Your task to perform on an android device: empty trash in google photos Image 0: 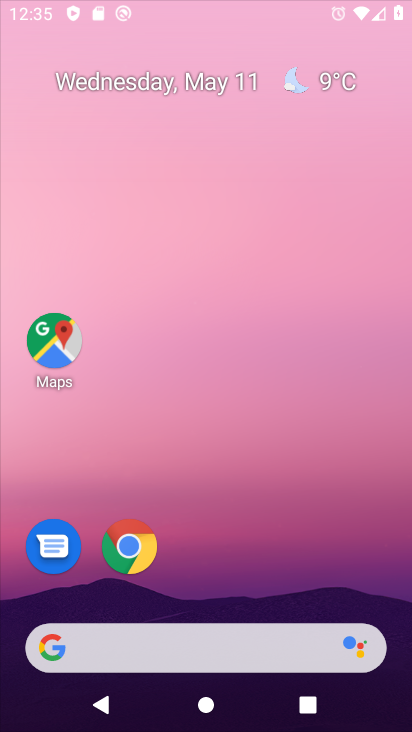
Step 0: click (237, 81)
Your task to perform on an android device: empty trash in google photos Image 1: 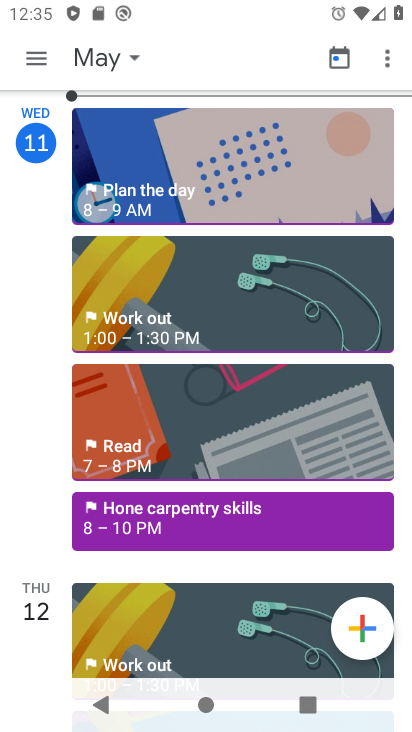
Step 1: drag from (200, 633) to (224, 232)
Your task to perform on an android device: empty trash in google photos Image 2: 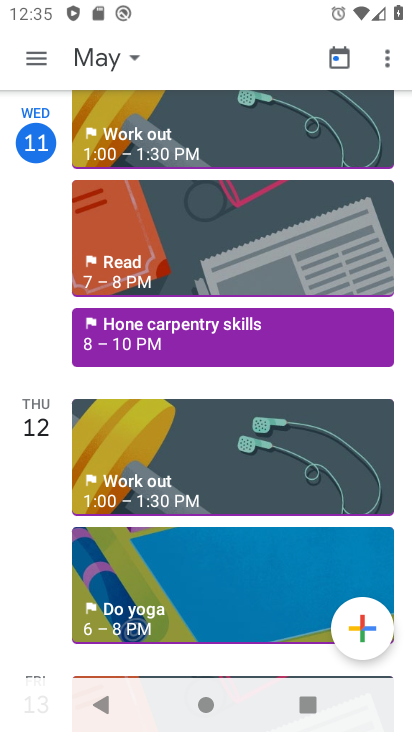
Step 2: drag from (230, 661) to (222, 268)
Your task to perform on an android device: empty trash in google photos Image 3: 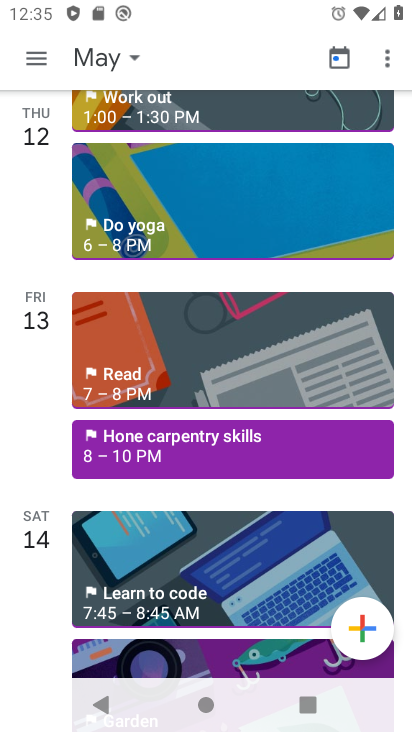
Step 3: drag from (228, 517) to (226, 302)
Your task to perform on an android device: empty trash in google photos Image 4: 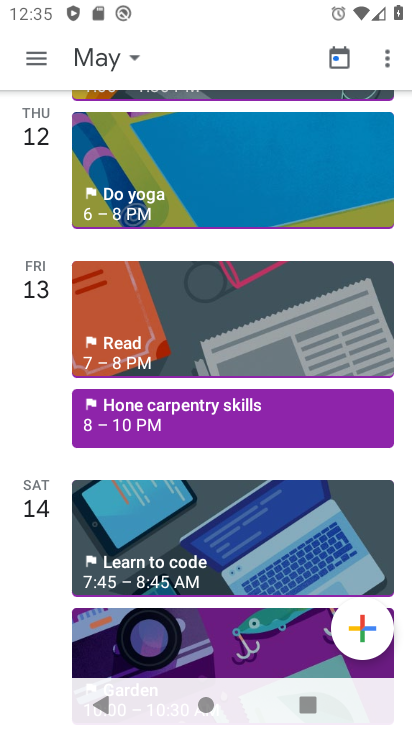
Step 4: press home button
Your task to perform on an android device: empty trash in google photos Image 5: 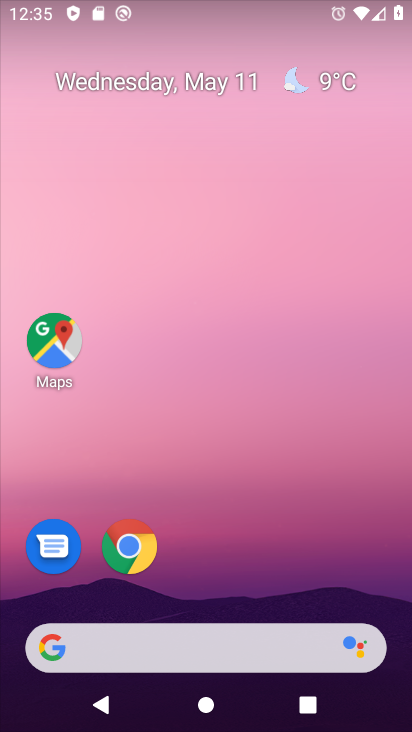
Step 5: drag from (185, 583) to (216, 196)
Your task to perform on an android device: empty trash in google photos Image 6: 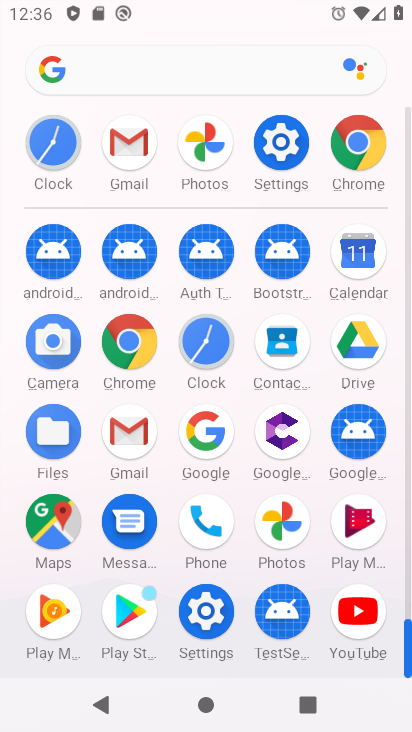
Step 6: click (276, 523)
Your task to perform on an android device: empty trash in google photos Image 7: 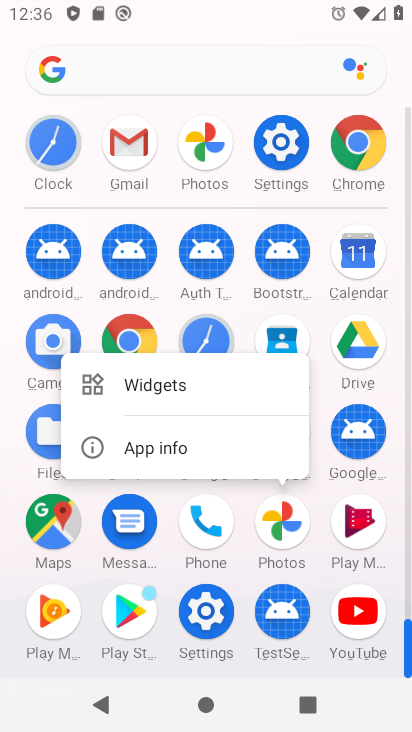
Step 7: click (113, 463)
Your task to perform on an android device: empty trash in google photos Image 8: 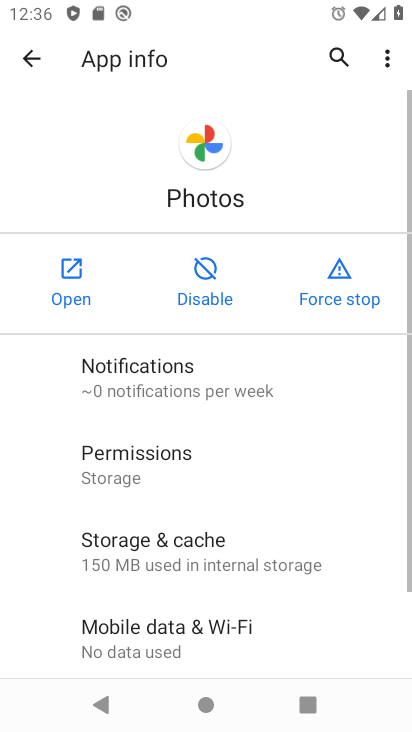
Step 8: click (78, 265)
Your task to perform on an android device: empty trash in google photos Image 9: 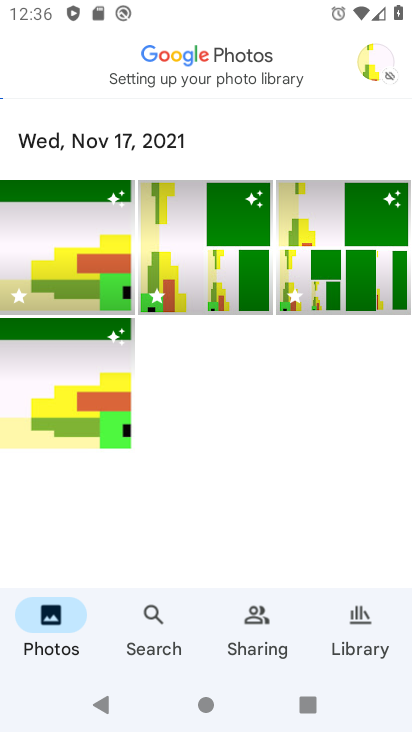
Step 9: drag from (190, 463) to (185, 222)
Your task to perform on an android device: empty trash in google photos Image 10: 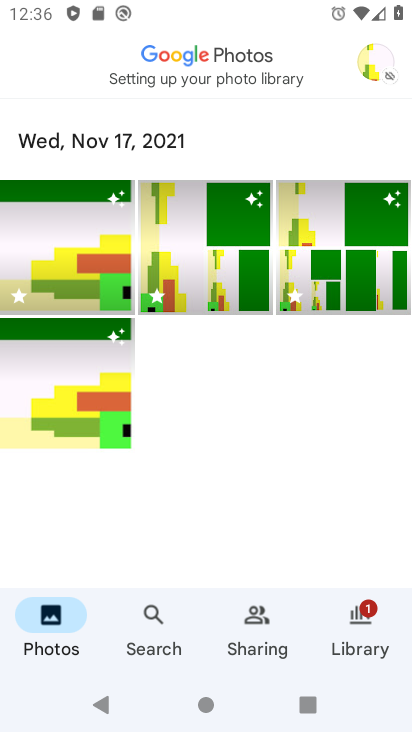
Step 10: drag from (215, 527) to (239, 258)
Your task to perform on an android device: empty trash in google photos Image 11: 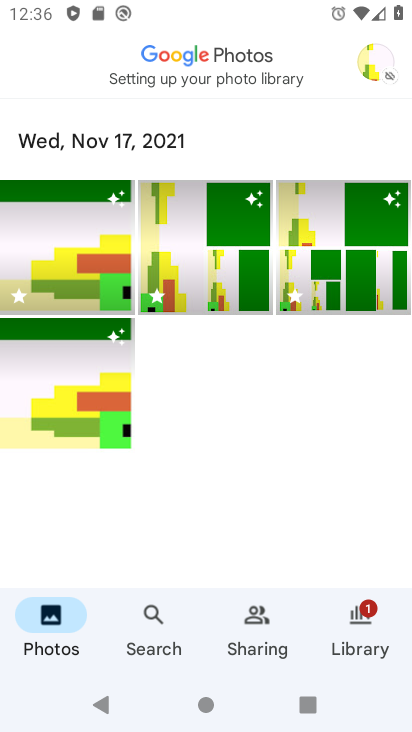
Step 11: drag from (250, 500) to (215, 342)
Your task to perform on an android device: empty trash in google photos Image 12: 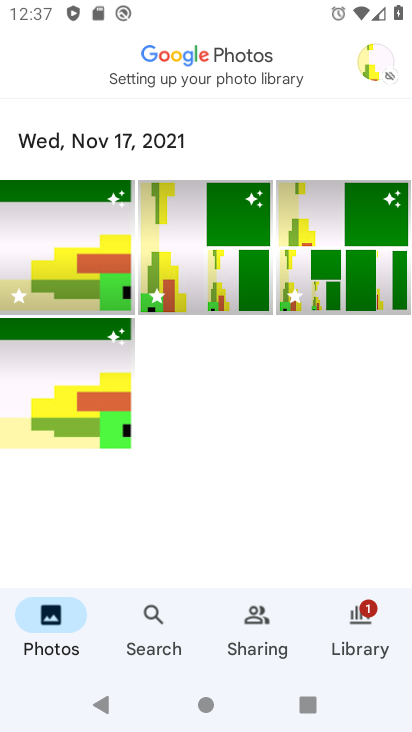
Step 12: drag from (242, 553) to (207, 117)
Your task to perform on an android device: empty trash in google photos Image 13: 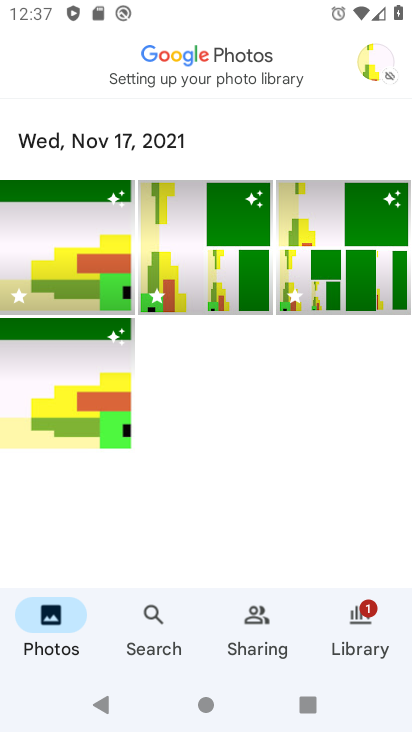
Step 13: drag from (175, 475) to (294, 224)
Your task to perform on an android device: empty trash in google photos Image 14: 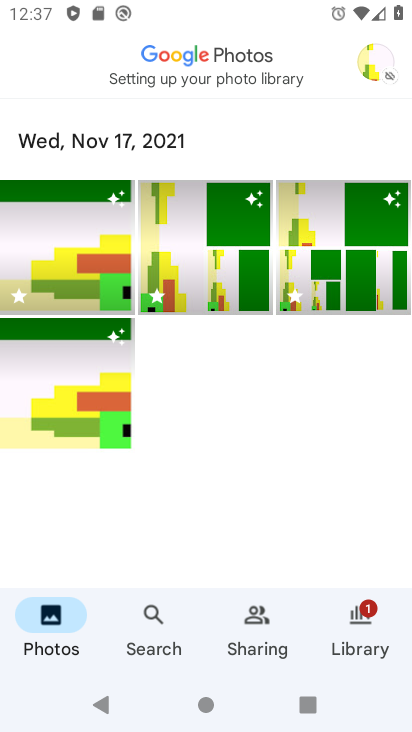
Step 14: drag from (172, 510) to (342, 177)
Your task to perform on an android device: empty trash in google photos Image 15: 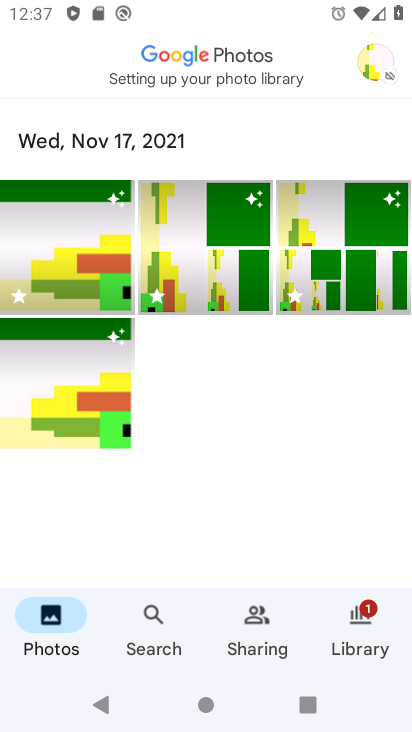
Step 15: click (341, 619)
Your task to perform on an android device: empty trash in google photos Image 16: 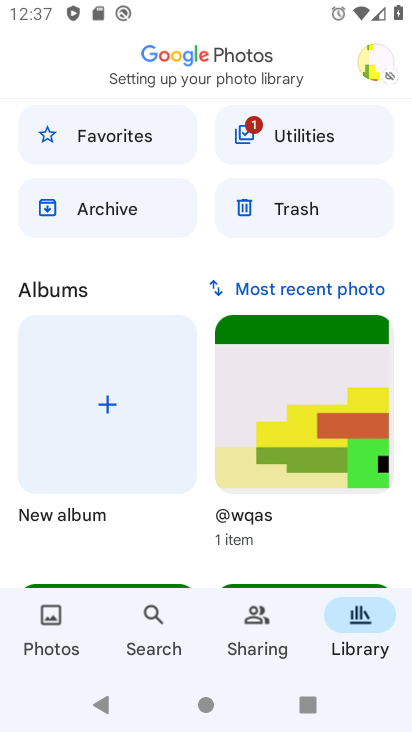
Step 16: click (278, 225)
Your task to perform on an android device: empty trash in google photos Image 17: 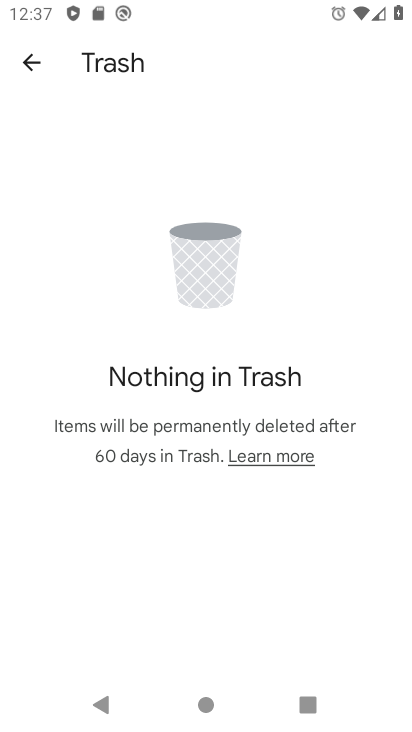
Step 17: task complete